Your task to perform on an android device: Search for "razer deathadder" on target.com, select the first entry, add it to the cart, then select checkout. Image 0: 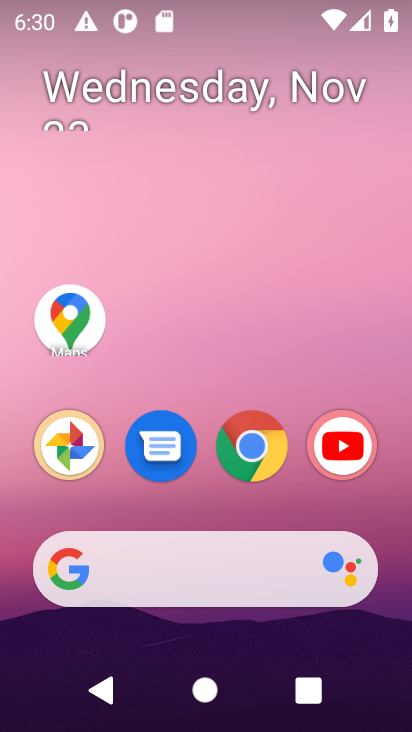
Step 0: click (187, 580)
Your task to perform on an android device: Search for "razer deathadder" on target.com, select the first entry, add it to the cart, then select checkout. Image 1: 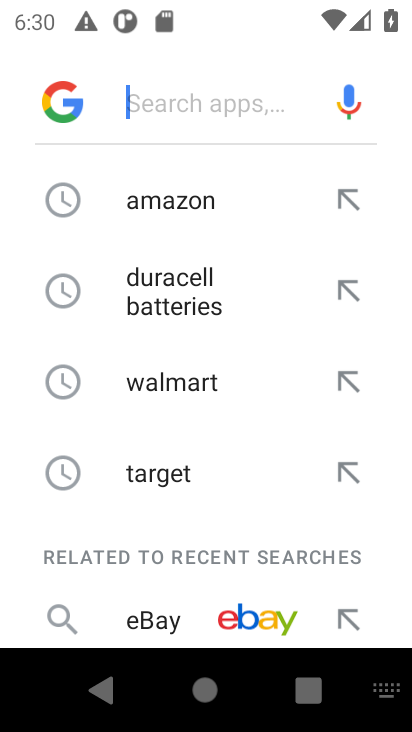
Step 1: type "target.com"
Your task to perform on an android device: Search for "razer deathadder" on target.com, select the first entry, add it to the cart, then select checkout. Image 2: 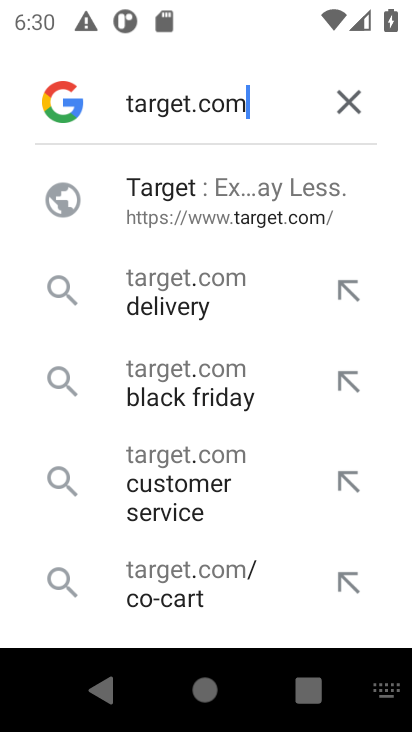
Step 2: click (253, 232)
Your task to perform on an android device: Search for "razer deathadder" on target.com, select the first entry, add it to the cart, then select checkout. Image 3: 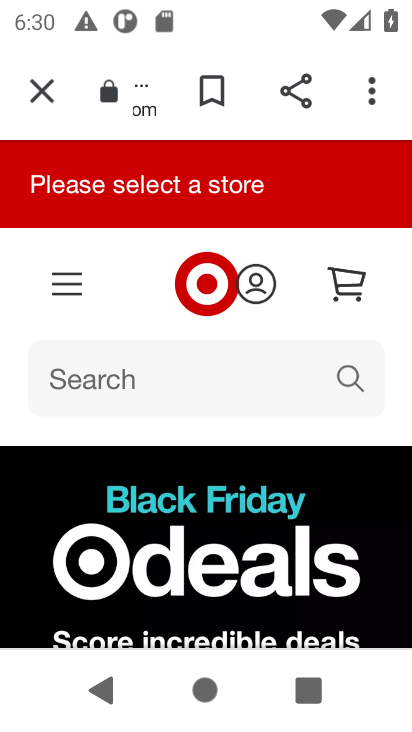
Step 3: click (214, 371)
Your task to perform on an android device: Search for "razer deathadder" on target.com, select the first entry, add it to the cart, then select checkout. Image 4: 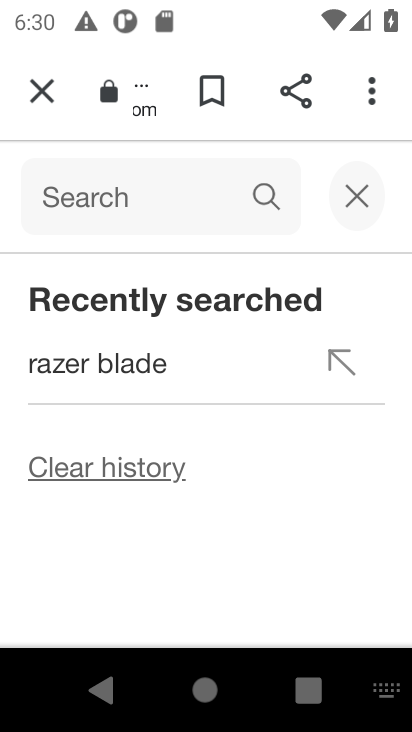
Step 4: type "razer deathadder"
Your task to perform on an android device: Search for "razer deathadder" on target.com, select the first entry, add it to the cart, then select checkout. Image 5: 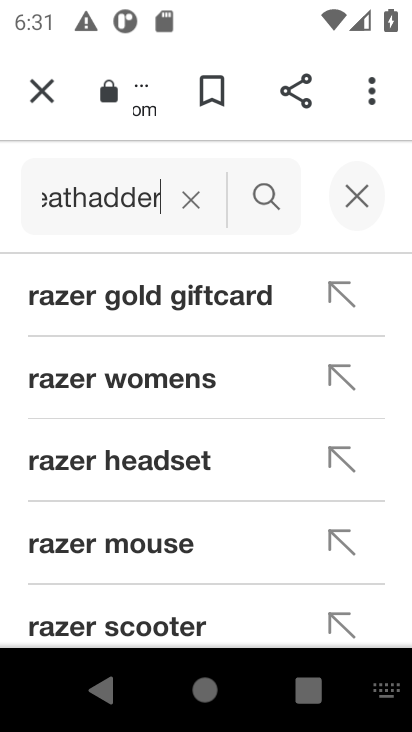
Step 5: click (258, 200)
Your task to perform on an android device: Search for "razer deathadder" on target.com, select the first entry, add it to the cart, then select checkout. Image 6: 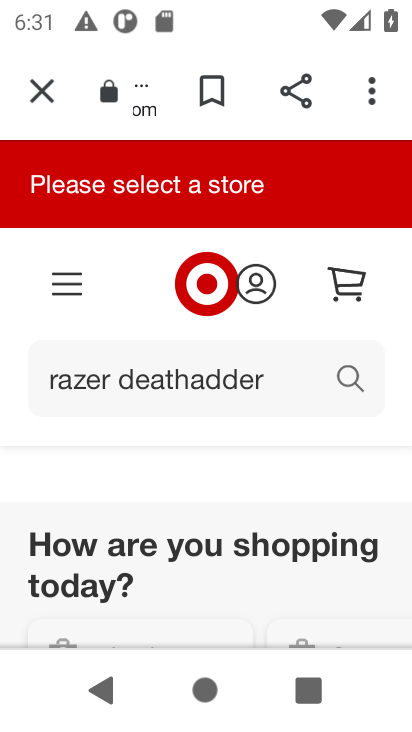
Step 6: drag from (222, 485) to (277, 189)
Your task to perform on an android device: Search for "razer deathadder" on target.com, select the first entry, add it to the cart, then select checkout. Image 7: 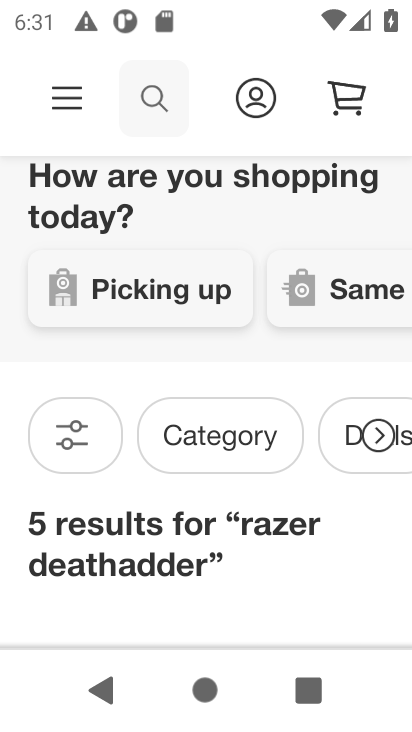
Step 7: drag from (249, 518) to (286, 243)
Your task to perform on an android device: Search for "razer deathadder" on target.com, select the first entry, add it to the cart, then select checkout. Image 8: 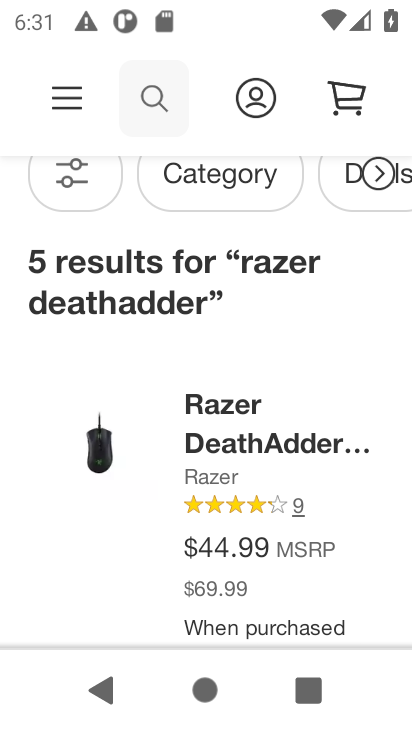
Step 8: click (245, 385)
Your task to perform on an android device: Search for "razer deathadder" on target.com, select the first entry, add it to the cart, then select checkout. Image 9: 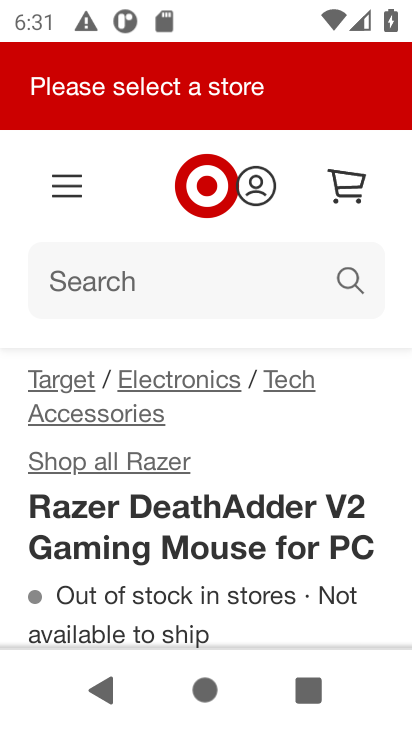
Step 9: drag from (226, 459) to (246, 147)
Your task to perform on an android device: Search for "razer deathadder" on target.com, select the first entry, add it to the cart, then select checkout. Image 10: 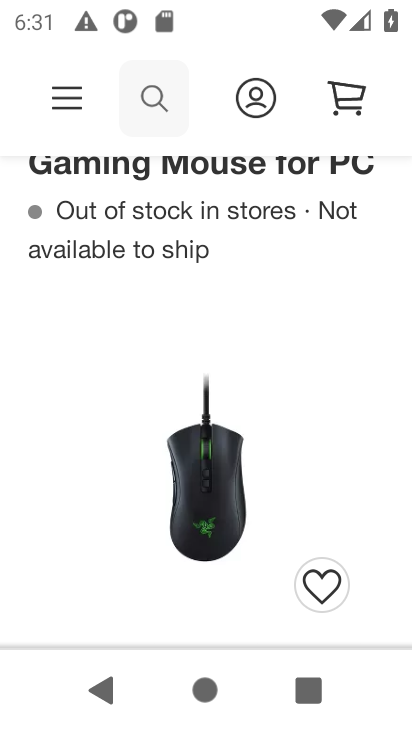
Step 10: drag from (133, 577) to (166, 183)
Your task to perform on an android device: Search for "razer deathadder" on target.com, select the first entry, add it to the cart, then select checkout. Image 11: 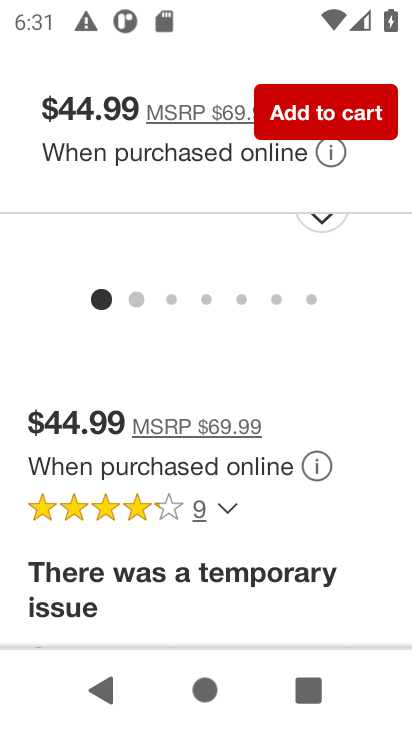
Step 11: drag from (263, 522) to (268, 241)
Your task to perform on an android device: Search for "razer deathadder" on target.com, select the first entry, add it to the cart, then select checkout. Image 12: 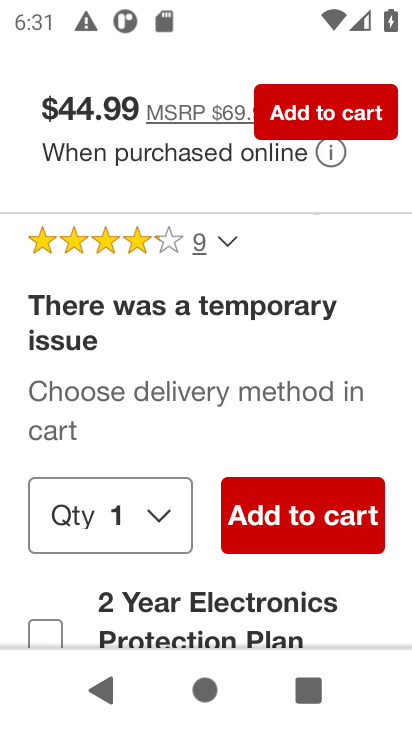
Step 12: click (268, 495)
Your task to perform on an android device: Search for "razer deathadder" on target.com, select the first entry, add it to the cart, then select checkout. Image 13: 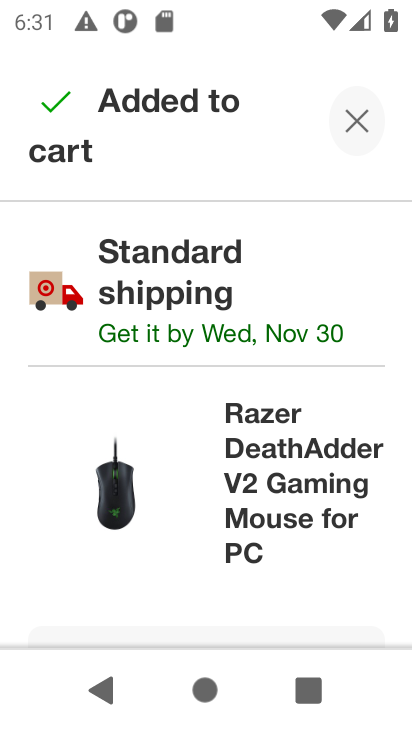
Step 13: task complete